Your task to perform on an android device: Go to Amazon Image 0: 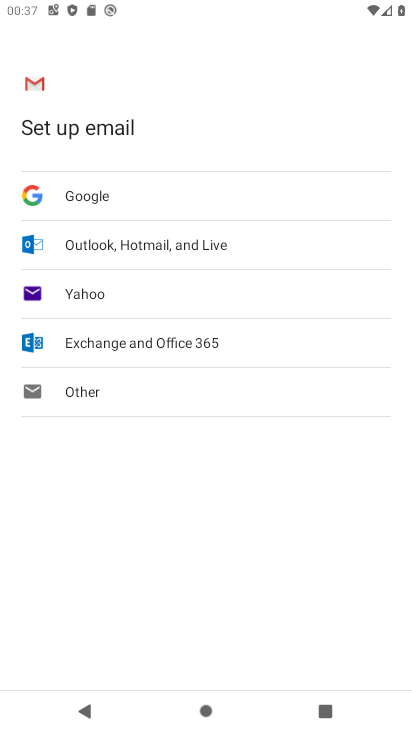
Step 0: press home button
Your task to perform on an android device: Go to Amazon Image 1: 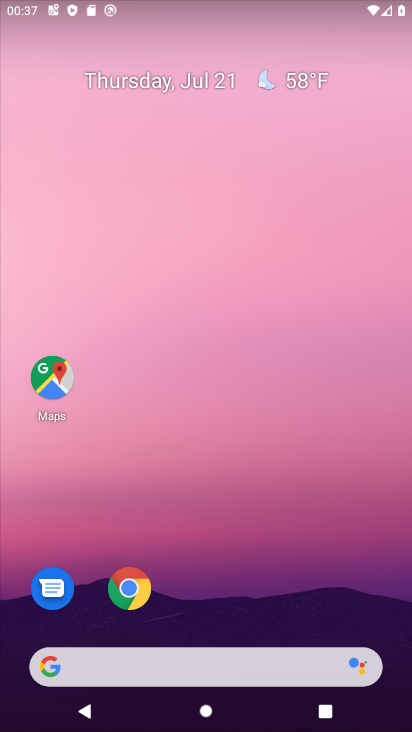
Step 1: click (132, 593)
Your task to perform on an android device: Go to Amazon Image 2: 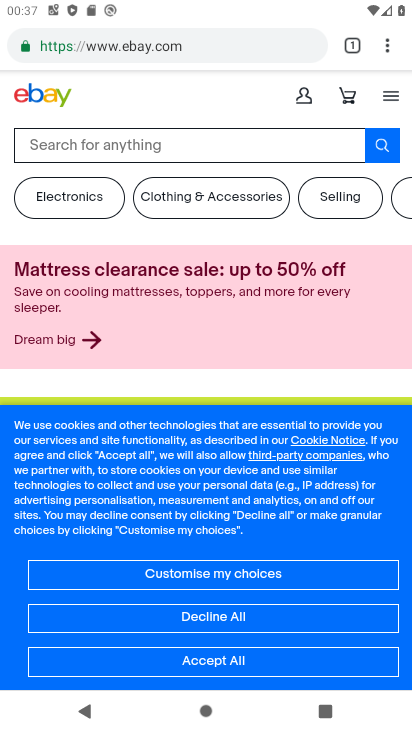
Step 2: click (174, 46)
Your task to perform on an android device: Go to Amazon Image 3: 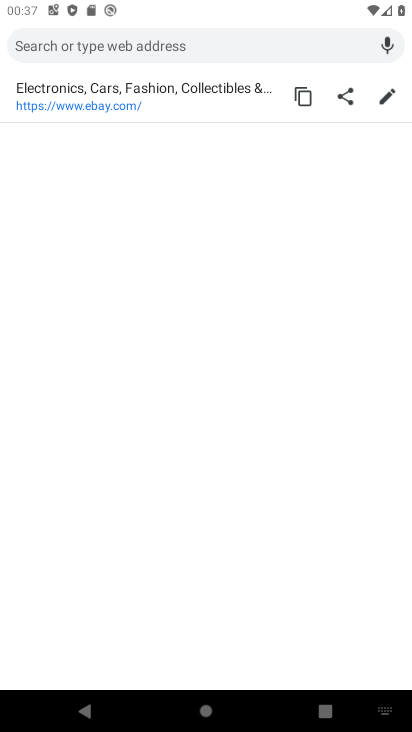
Step 3: type "Amazon"
Your task to perform on an android device: Go to Amazon Image 4: 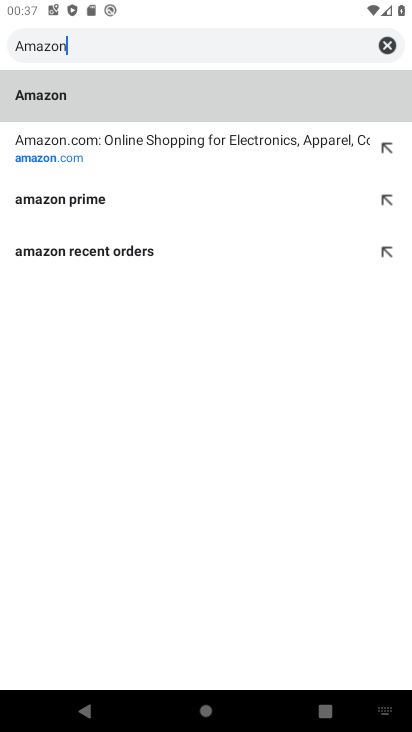
Step 4: click (81, 144)
Your task to perform on an android device: Go to Amazon Image 5: 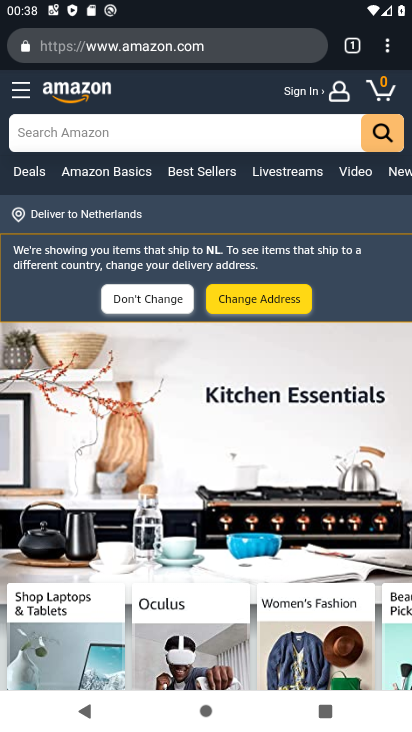
Step 5: task complete